Your task to perform on an android device: turn on the 24-hour format for clock Image 0: 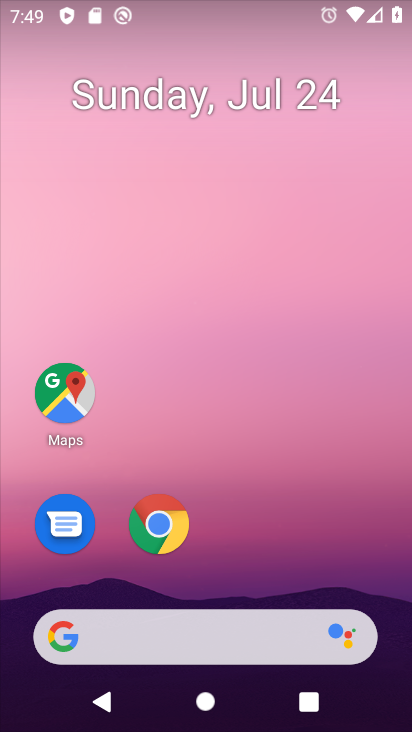
Step 0: drag from (282, 552) to (223, 0)
Your task to perform on an android device: turn on the 24-hour format for clock Image 1: 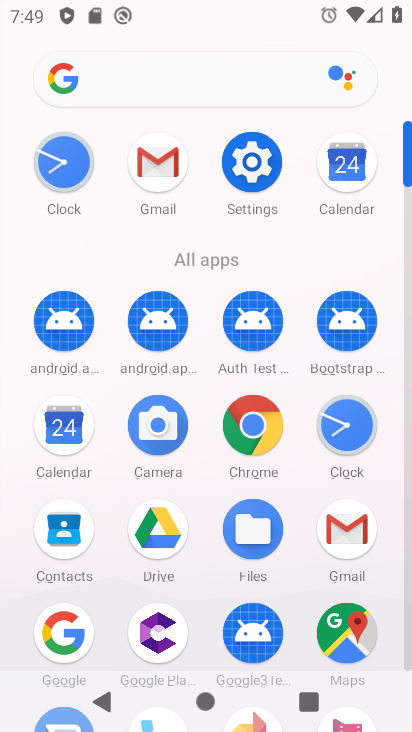
Step 1: click (64, 183)
Your task to perform on an android device: turn on the 24-hour format for clock Image 2: 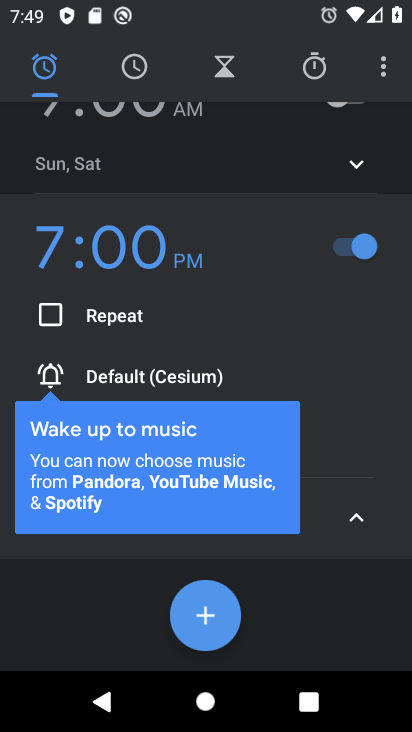
Step 2: drag from (270, 244) to (260, 565)
Your task to perform on an android device: turn on the 24-hour format for clock Image 3: 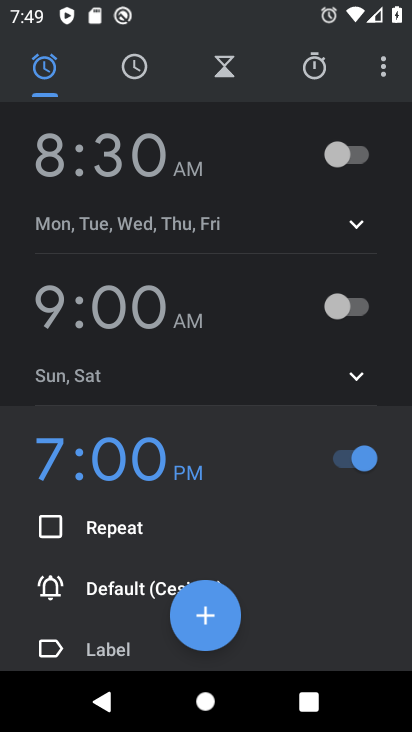
Step 3: drag from (240, 512) to (266, 132)
Your task to perform on an android device: turn on the 24-hour format for clock Image 4: 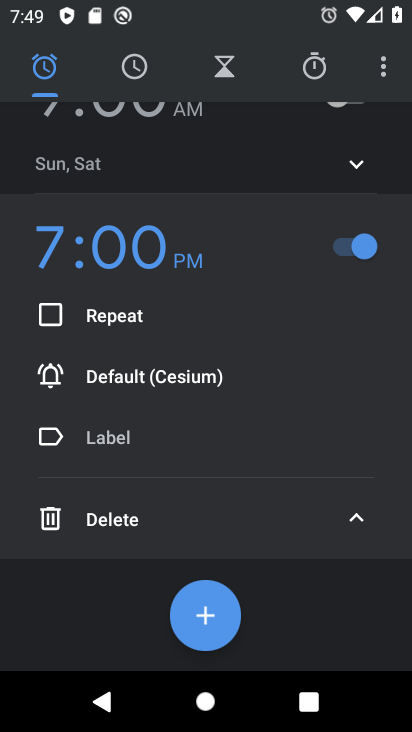
Step 4: drag from (259, 148) to (238, 477)
Your task to perform on an android device: turn on the 24-hour format for clock Image 5: 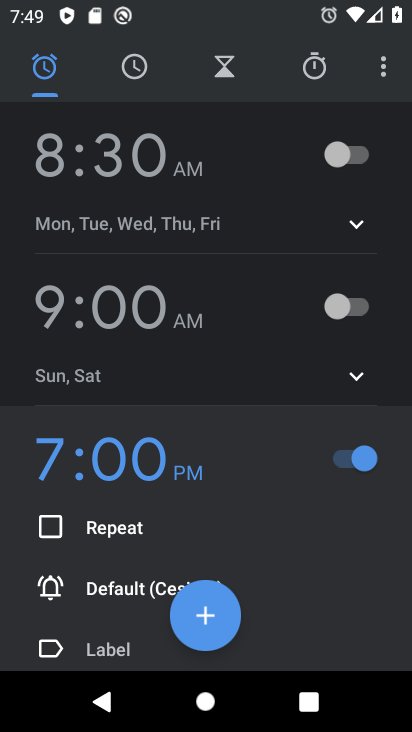
Step 5: click (382, 63)
Your task to perform on an android device: turn on the 24-hour format for clock Image 6: 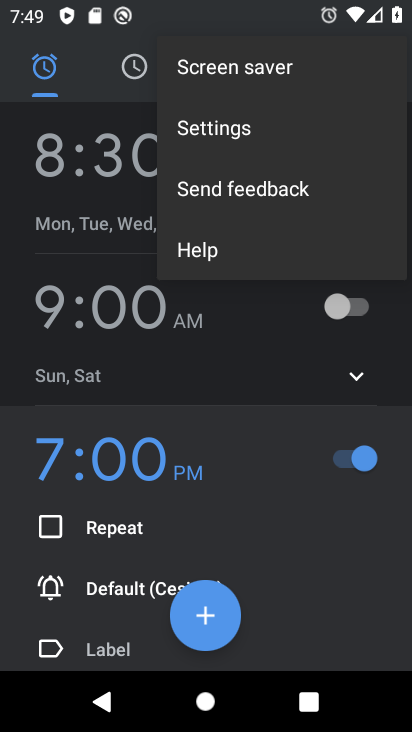
Step 6: click (238, 128)
Your task to perform on an android device: turn on the 24-hour format for clock Image 7: 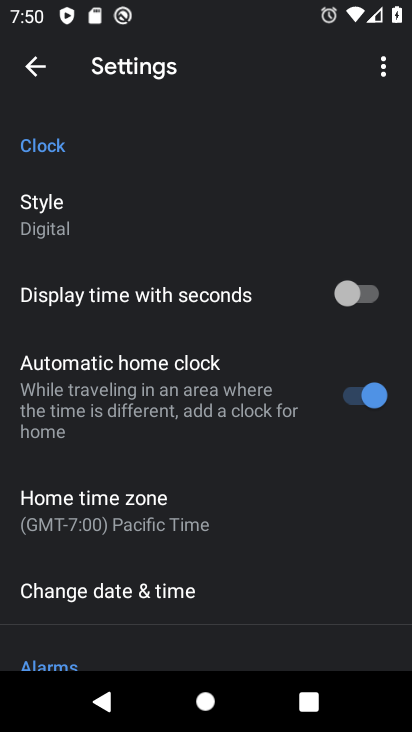
Step 7: click (229, 596)
Your task to perform on an android device: turn on the 24-hour format for clock Image 8: 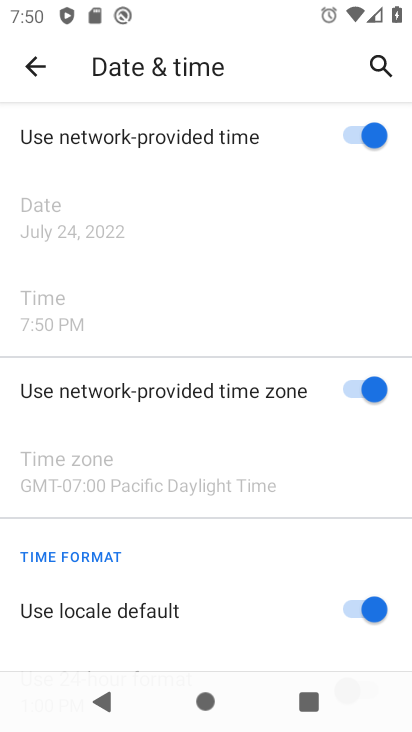
Step 8: drag from (237, 448) to (243, 224)
Your task to perform on an android device: turn on the 24-hour format for clock Image 9: 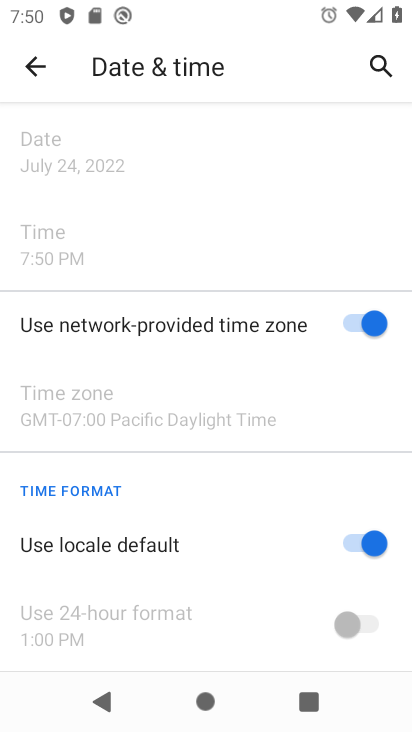
Step 9: click (360, 546)
Your task to perform on an android device: turn on the 24-hour format for clock Image 10: 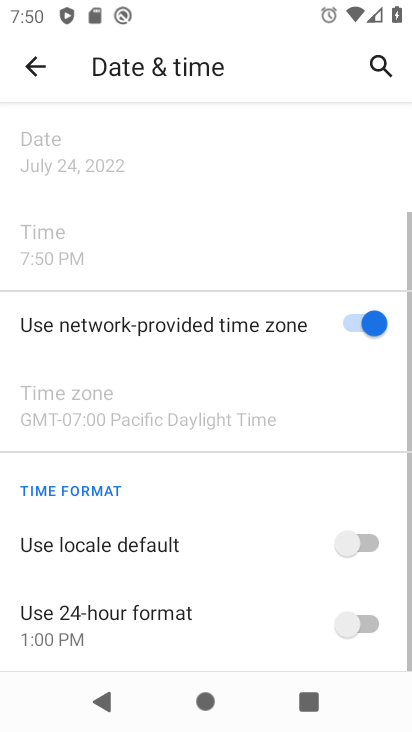
Step 10: click (365, 618)
Your task to perform on an android device: turn on the 24-hour format for clock Image 11: 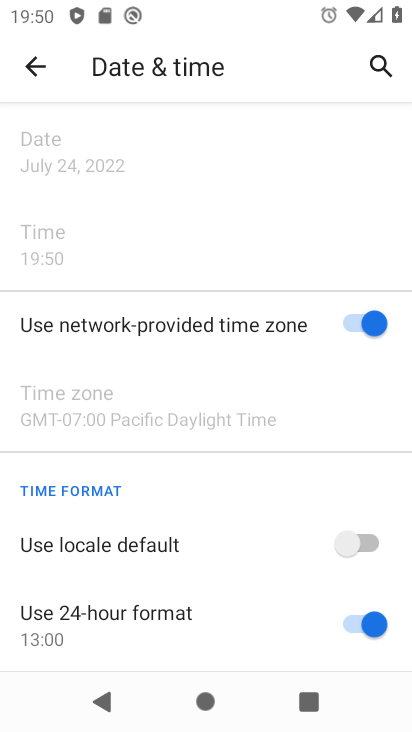
Step 11: click (36, 57)
Your task to perform on an android device: turn on the 24-hour format for clock Image 12: 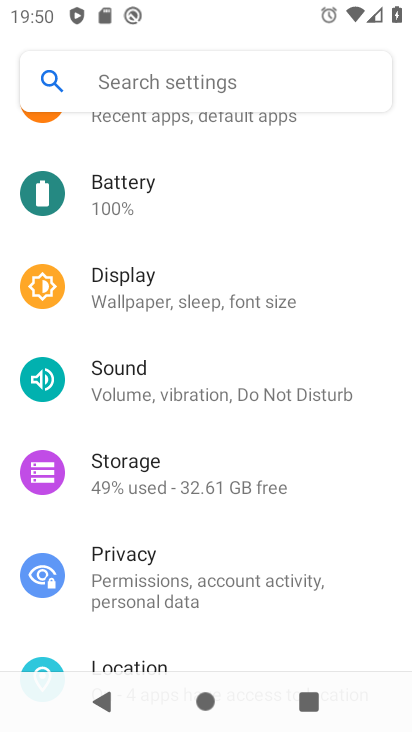
Step 12: task complete